Your task to perform on an android device: move an email to a new category in the gmail app Image 0: 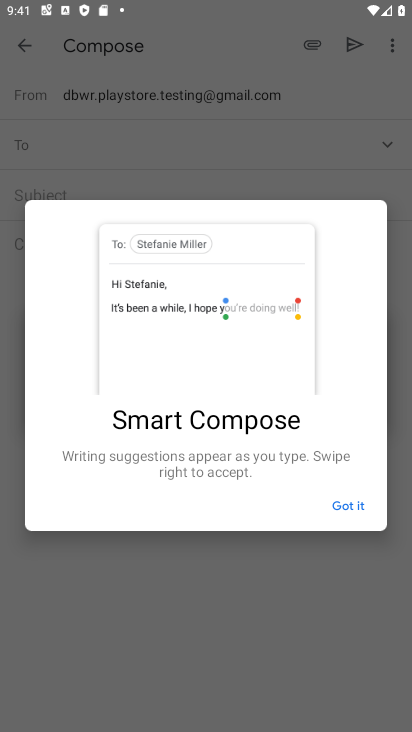
Step 0: press home button
Your task to perform on an android device: move an email to a new category in the gmail app Image 1: 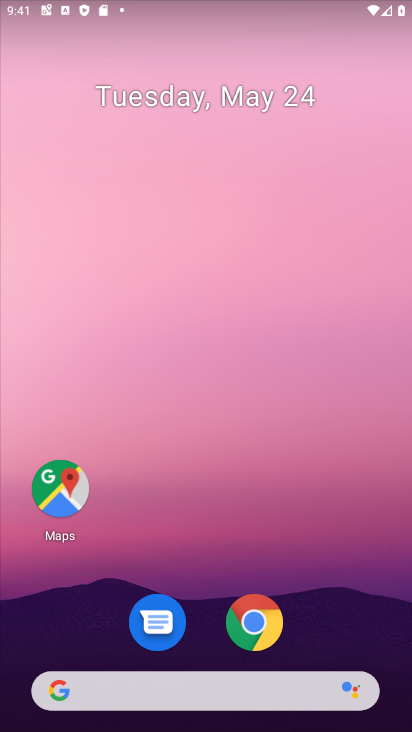
Step 1: drag from (293, 328) to (307, 36)
Your task to perform on an android device: move an email to a new category in the gmail app Image 2: 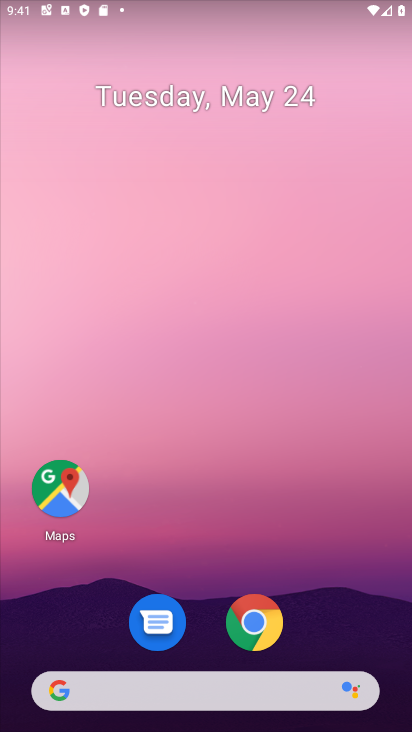
Step 2: drag from (143, 704) to (279, 58)
Your task to perform on an android device: move an email to a new category in the gmail app Image 3: 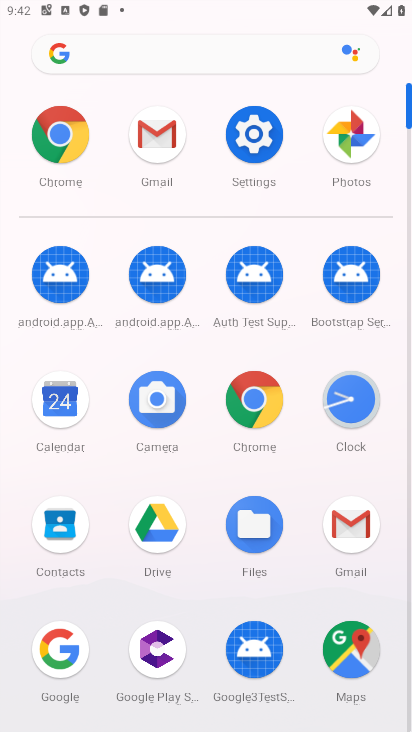
Step 3: click (153, 153)
Your task to perform on an android device: move an email to a new category in the gmail app Image 4: 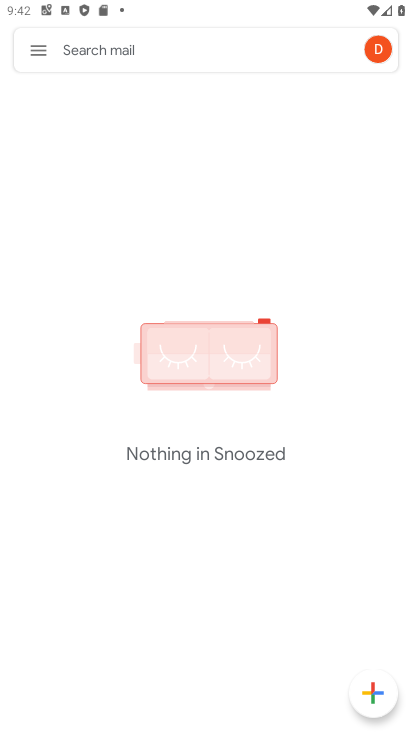
Step 4: click (31, 35)
Your task to perform on an android device: move an email to a new category in the gmail app Image 5: 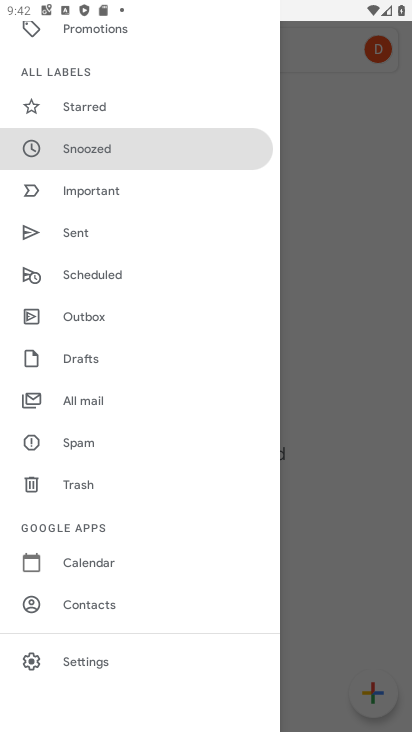
Step 5: click (70, 664)
Your task to perform on an android device: move an email to a new category in the gmail app Image 6: 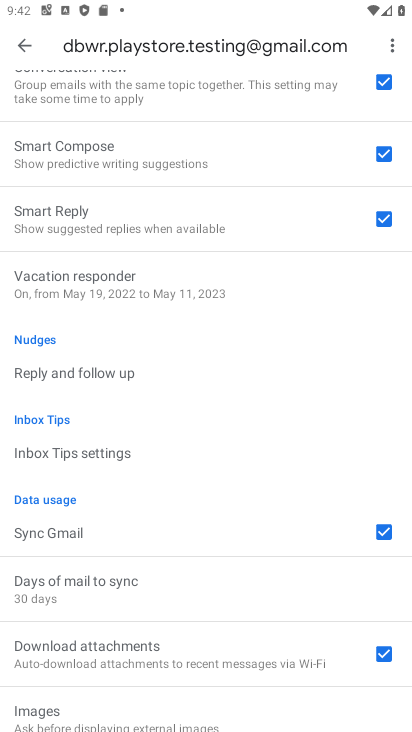
Step 6: drag from (199, 198) to (162, 648)
Your task to perform on an android device: move an email to a new category in the gmail app Image 7: 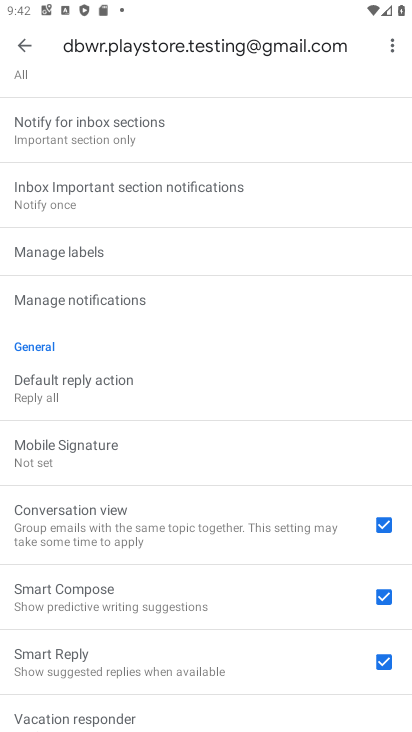
Step 7: drag from (148, 212) to (124, 432)
Your task to perform on an android device: move an email to a new category in the gmail app Image 8: 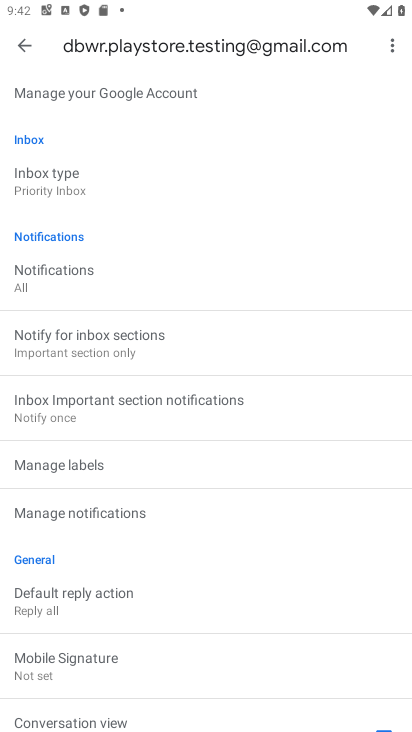
Step 8: click (95, 184)
Your task to perform on an android device: move an email to a new category in the gmail app Image 9: 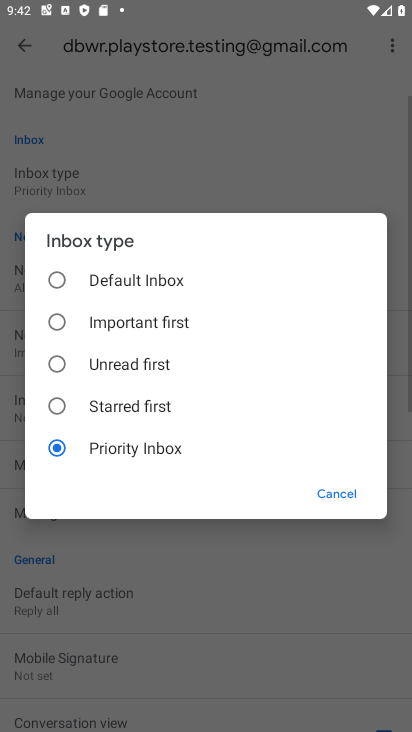
Step 9: click (119, 284)
Your task to perform on an android device: move an email to a new category in the gmail app Image 10: 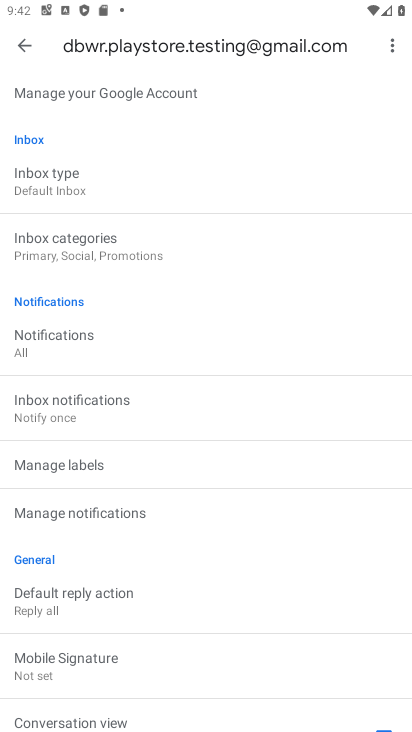
Step 10: click (87, 238)
Your task to perform on an android device: move an email to a new category in the gmail app Image 11: 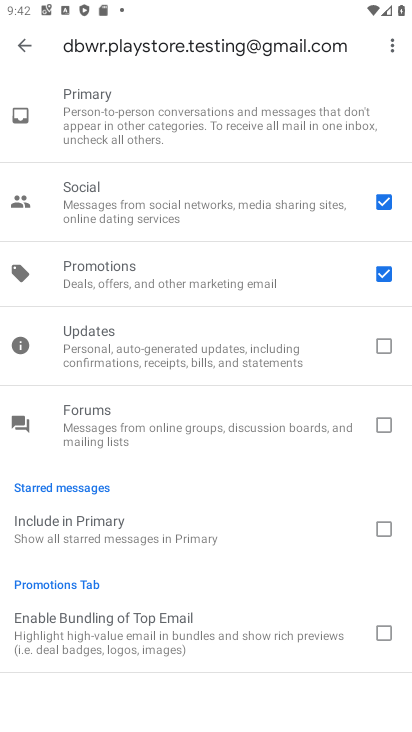
Step 11: click (394, 277)
Your task to perform on an android device: move an email to a new category in the gmail app Image 12: 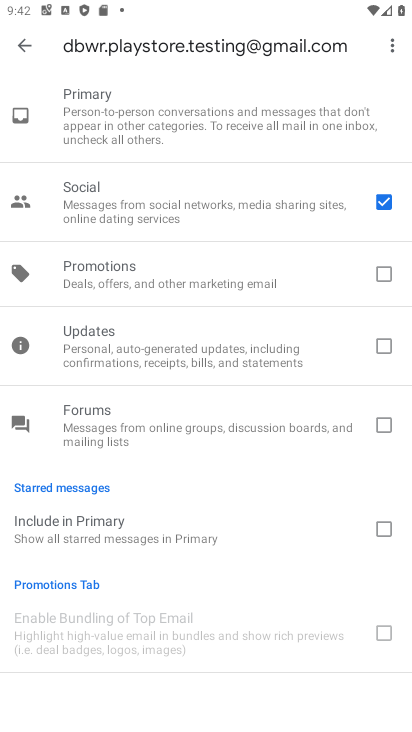
Step 12: task complete